Your task to perform on an android device: turn on improve location accuracy Image 0: 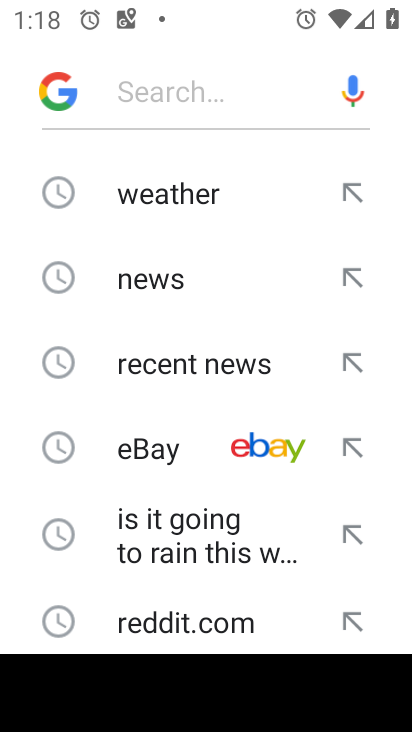
Step 0: press back button
Your task to perform on an android device: turn on improve location accuracy Image 1: 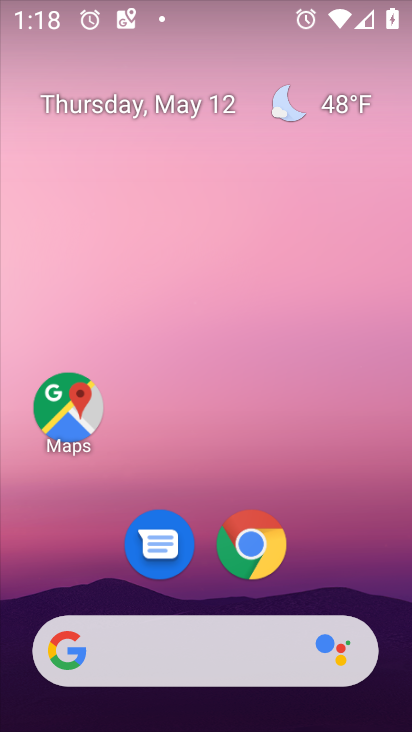
Step 1: drag from (372, 549) to (261, 23)
Your task to perform on an android device: turn on improve location accuracy Image 2: 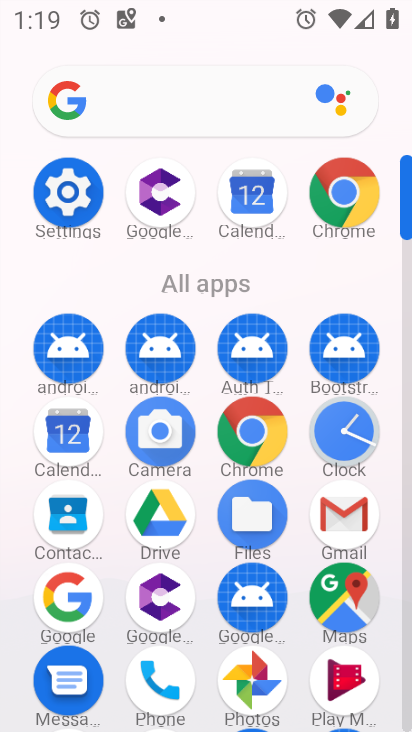
Step 2: click (50, 189)
Your task to perform on an android device: turn on improve location accuracy Image 3: 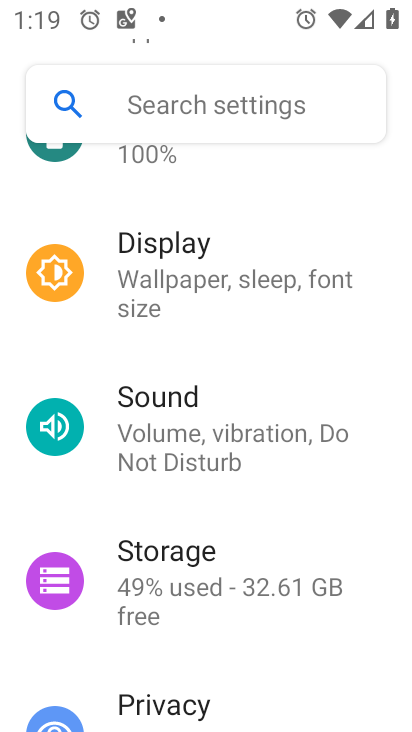
Step 3: drag from (276, 467) to (338, 158)
Your task to perform on an android device: turn on improve location accuracy Image 4: 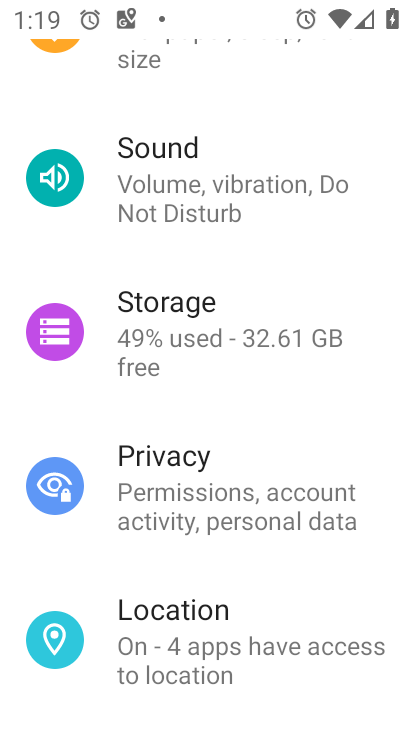
Step 4: drag from (257, 494) to (255, 145)
Your task to perform on an android device: turn on improve location accuracy Image 5: 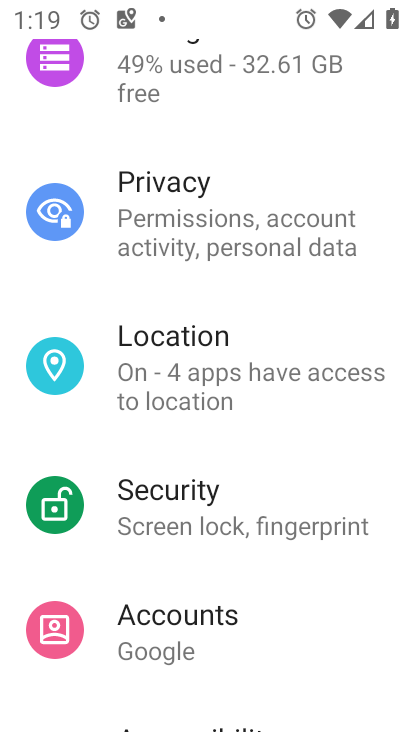
Step 5: drag from (248, 505) to (241, 142)
Your task to perform on an android device: turn on improve location accuracy Image 6: 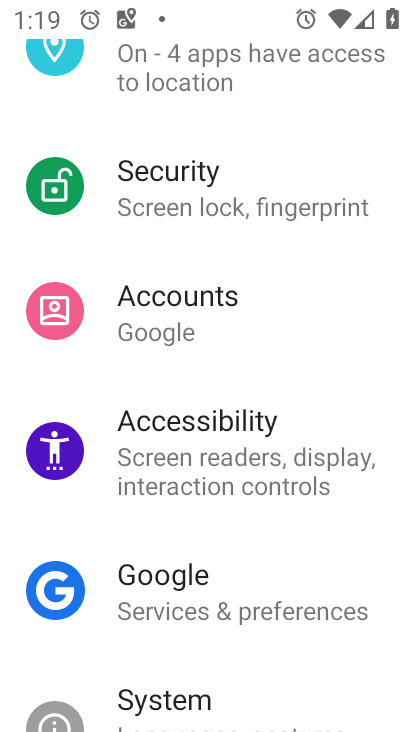
Step 6: drag from (222, 503) to (254, 78)
Your task to perform on an android device: turn on improve location accuracy Image 7: 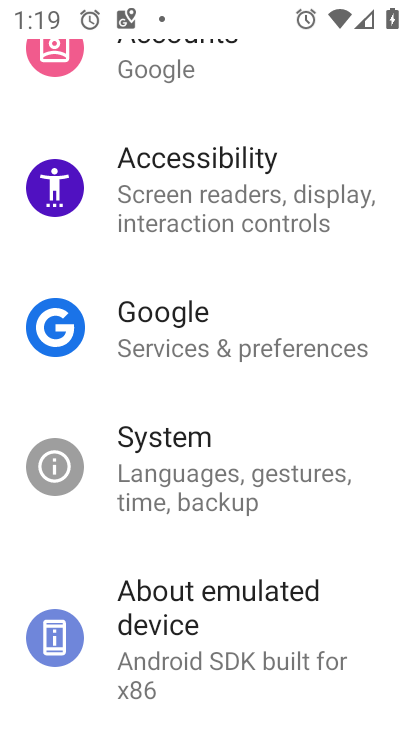
Step 7: drag from (191, 500) to (191, 137)
Your task to perform on an android device: turn on improve location accuracy Image 8: 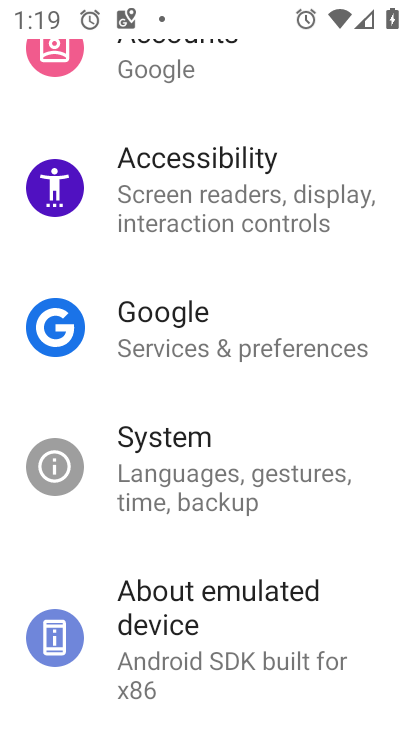
Step 8: drag from (256, 523) to (252, 185)
Your task to perform on an android device: turn on improve location accuracy Image 9: 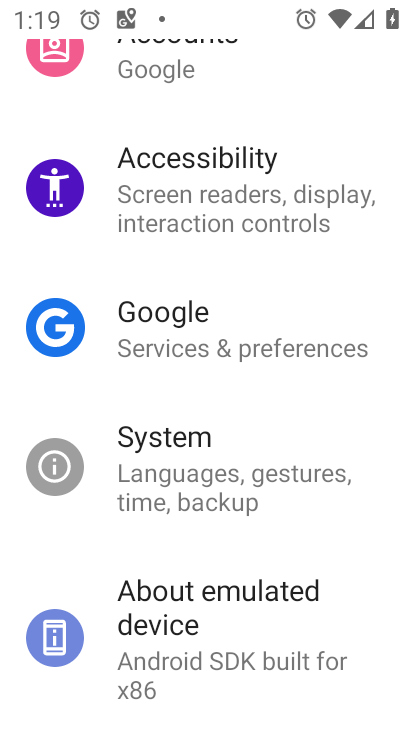
Step 9: drag from (260, 538) to (283, 191)
Your task to perform on an android device: turn on improve location accuracy Image 10: 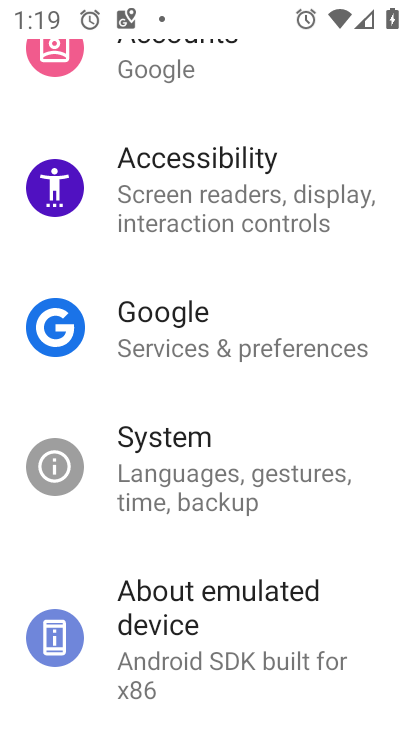
Step 10: drag from (272, 260) to (235, 584)
Your task to perform on an android device: turn on improve location accuracy Image 11: 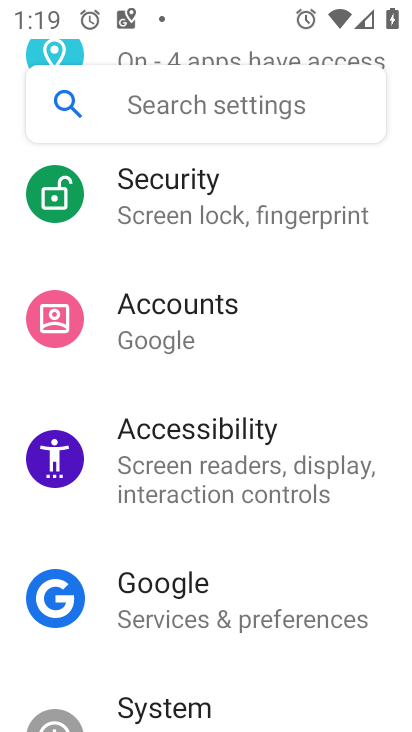
Step 11: drag from (308, 259) to (276, 544)
Your task to perform on an android device: turn on improve location accuracy Image 12: 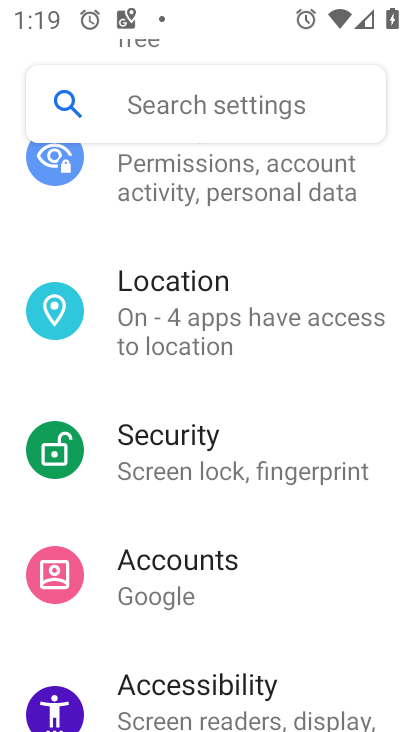
Step 12: click (231, 298)
Your task to perform on an android device: turn on improve location accuracy Image 13: 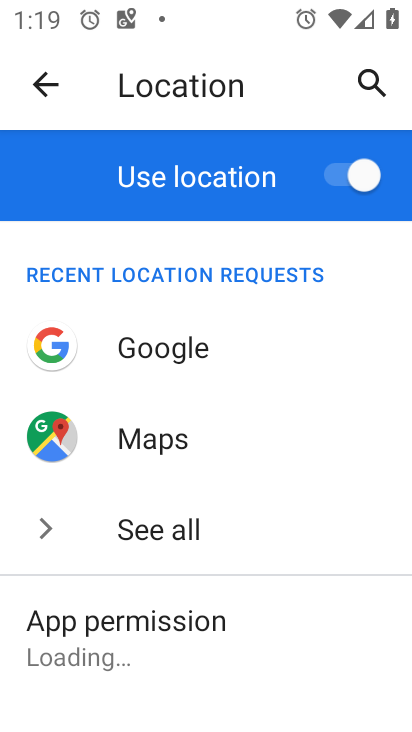
Step 13: drag from (261, 521) to (266, 179)
Your task to perform on an android device: turn on improve location accuracy Image 14: 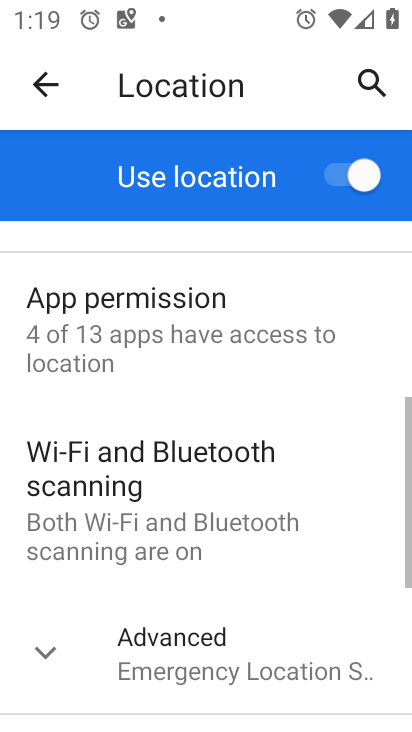
Step 14: drag from (234, 447) to (240, 247)
Your task to perform on an android device: turn on improve location accuracy Image 15: 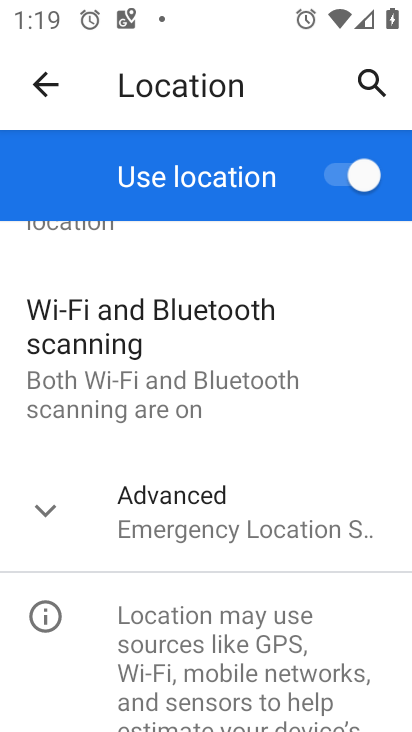
Step 15: click (164, 516)
Your task to perform on an android device: turn on improve location accuracy Image 16: 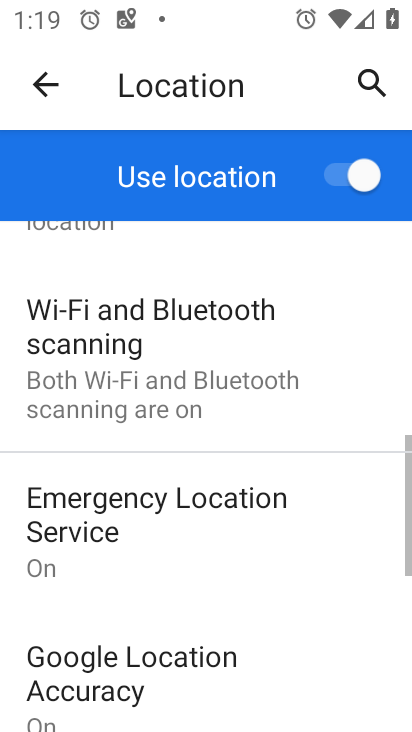
Step 16: drag from (295, 531) to (284, 193)
Your task to perform on an android device: turn on improve location accuracy Image 17: 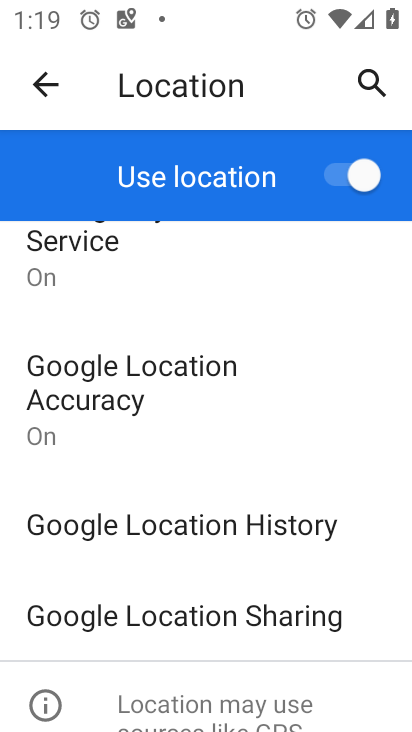
Step 17: drag from (235, 577) to (246, 236)
Your task to perform on an android device: turn on improve location accuracy Image 18: 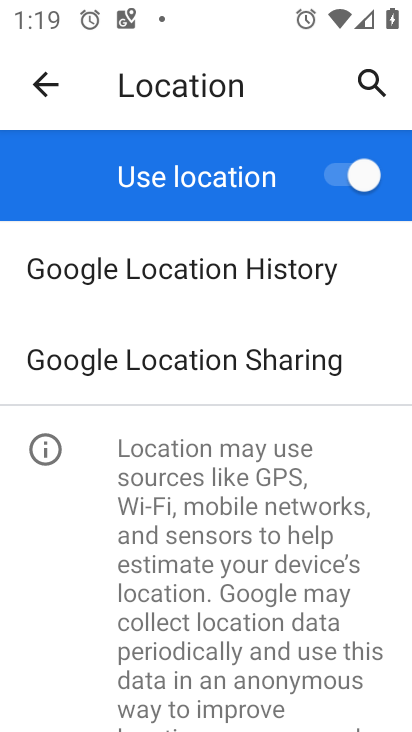
Step 18: drag from (279, 308) to (249, 567)
Your task to perform on an android device: turn on improve location accuracy Image 19: 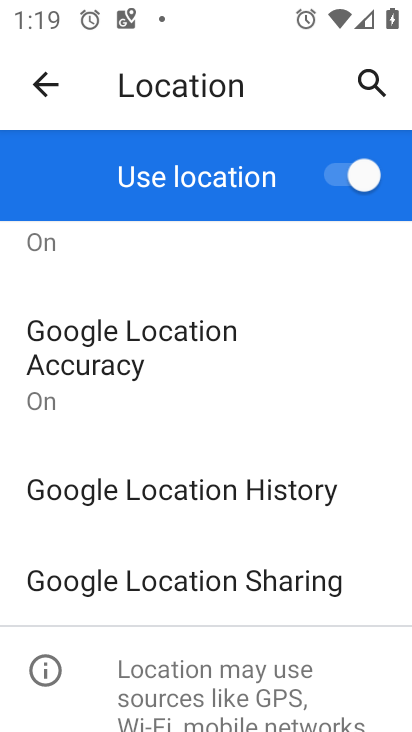
Step 19: drag from (235, 264) to (252, 432)
Your task to perform on an android device: turn on improve location accuracy Image 20: 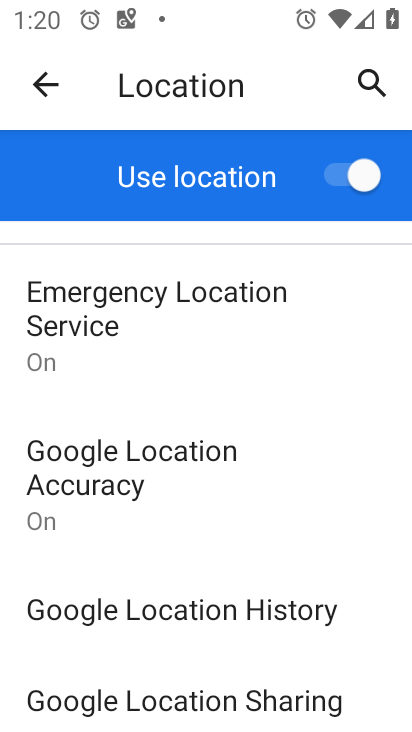
Step 20: click (159, 497)
Your task to perform on an android device: turn on improve location accuracy Image 21: 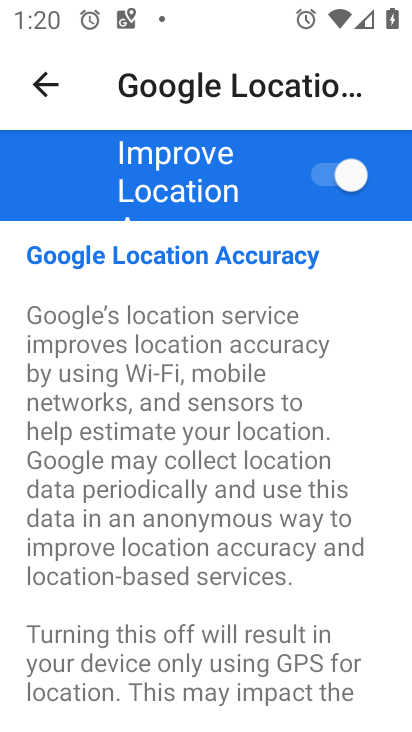
Step 21: task complete